Your task to perform on an android device: Open the calendar and show me this week's events Image 0: 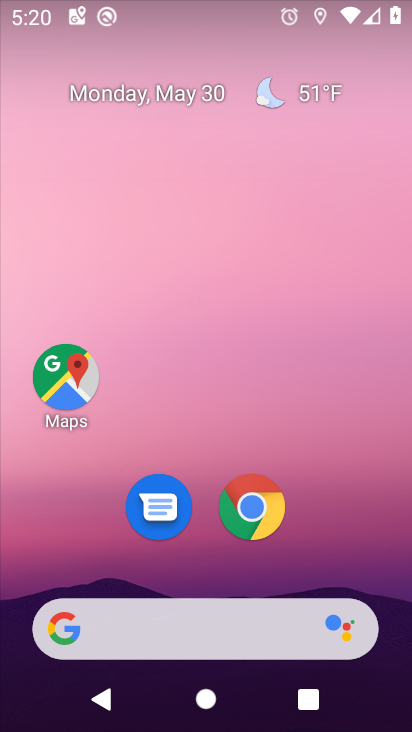
Step 0: press home button
Your task to perform on an android device: Open the calendar and show me this week's events Image 1: 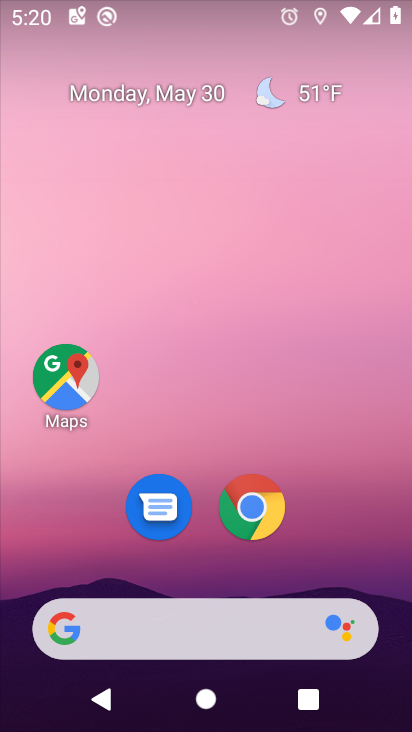
Step 1: drag from (371, 531) to (275, 10)
Your task to perform on an android device: Open the calendar and show me this week's events Image 2: 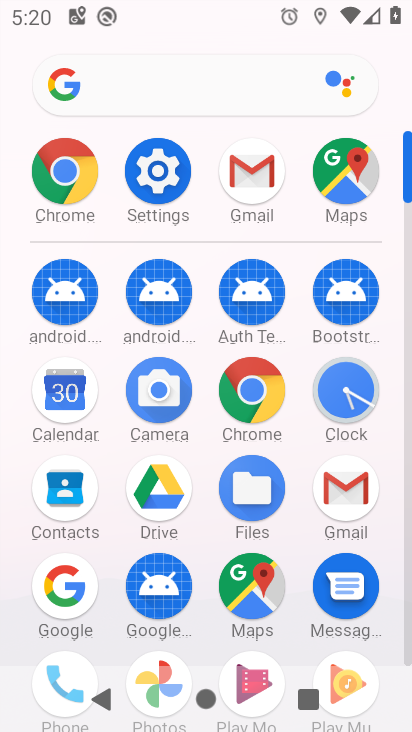
Step 2: click (402, 609)
Your task to perform on an android device: Open the calendar and show me this week's events Image 3: 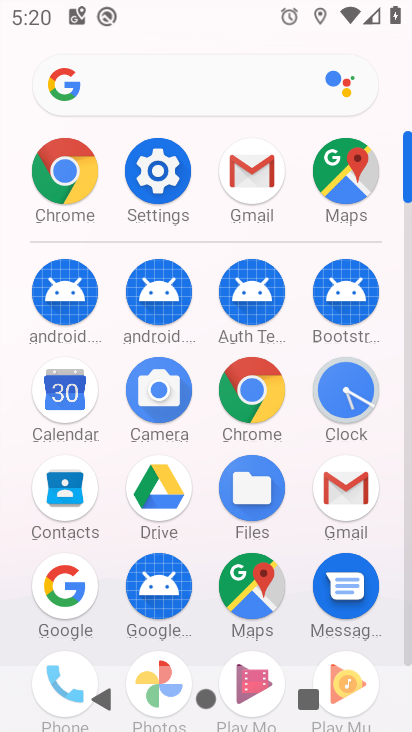
Step 3: click (64, 406)
Your task to perform on an android device: Open the calendar and show me this week's events Image 4: 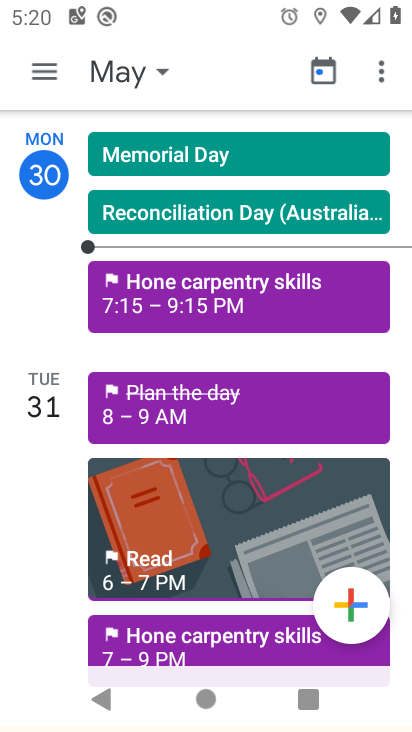
Step 4: click (136, 74)
Your task to perform on an android device: Open the calendar and show me this week's events Image 5: 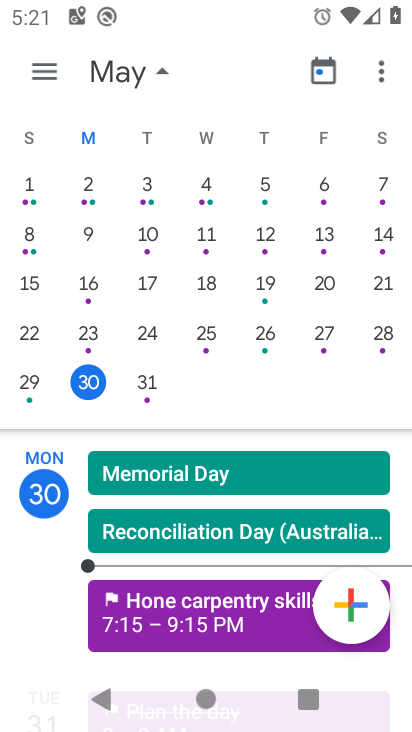
Step 5: task complete